Your task to perform on an android device: find photos in the google photos app Image 0: 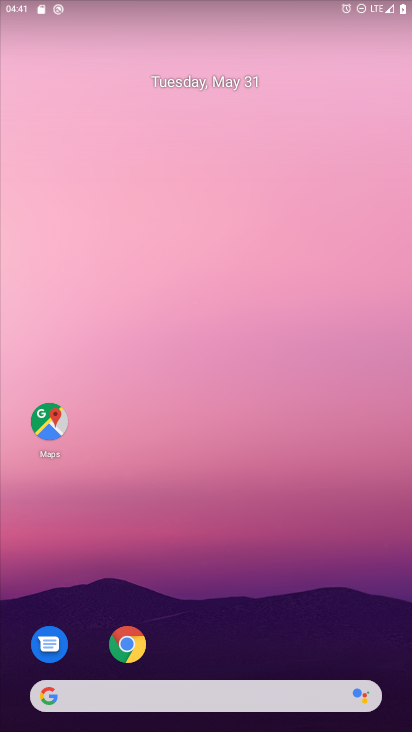
Step 0: drag from (301, 617) to (313, 165)
Your task to perform on an android device: find photos in the google photos app Image 1: 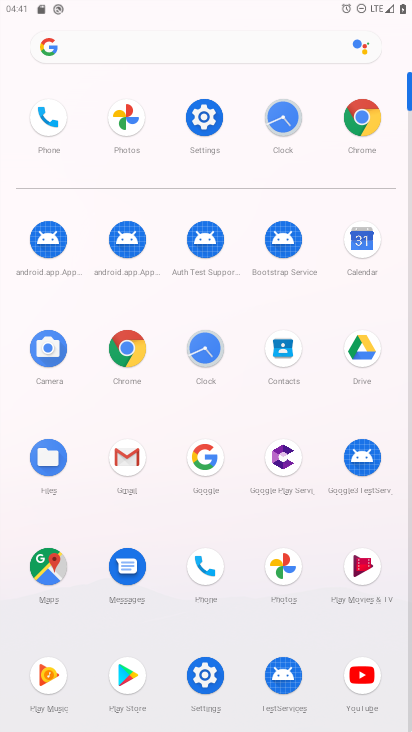
Step 1: click (278, 567)
Your task to perform on an android device: find photos in the google photos app Image 2: 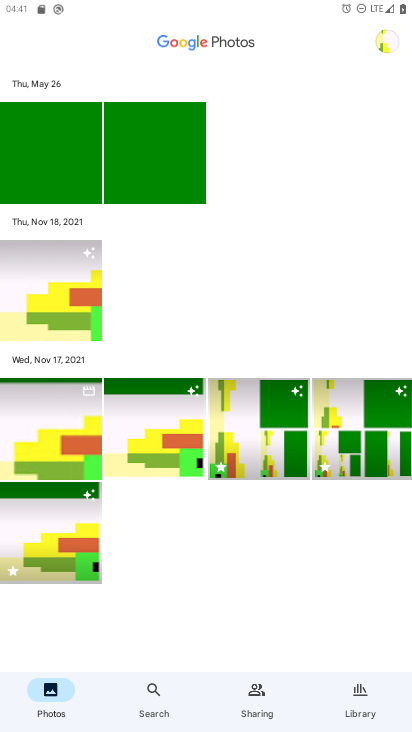
Step 2: task complete